Your task to perform on an android device: turn on showing notifications on the lock screen Image 0: 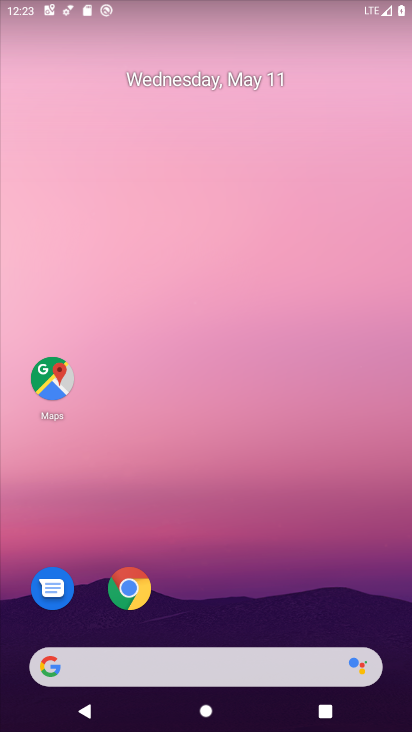
Step 0: drag from (206, 613) to (201, 244)
Your task to perform on an android device: turn on showing notifications on the lock screen Image 1: 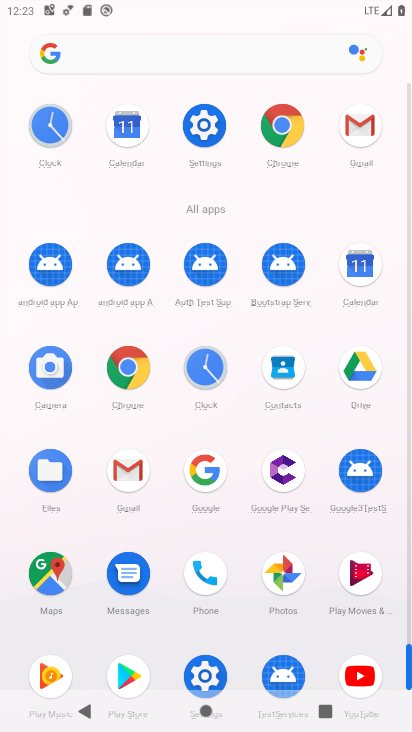
Step 1: click (196, 126)
Your task to perform on an android device: turn on showing notifications on the lock screen Image 2: 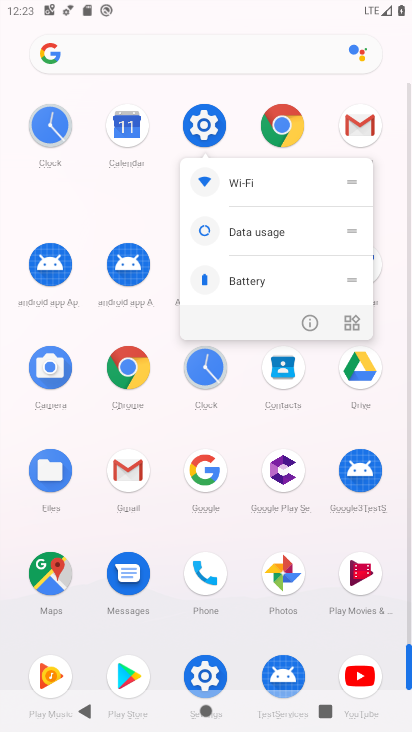
Step 2: click (201, 130)
Your task to perform on an android device: turn on showing notifications on the lock screen Image 3: 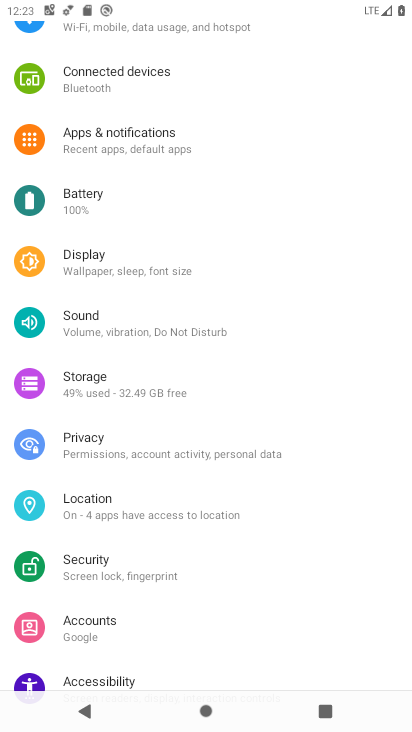
Step 3: click (108, 454)
Your task to perform on an android device: turn on showing notifications on the lock screen Image 4: 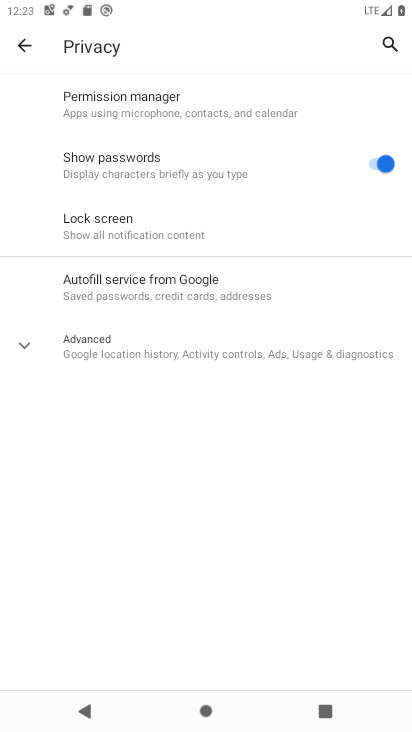
Step 4: click (155, 226)
Your task to perform on an android device: turn on showing notifications on the lock screen Image 5: 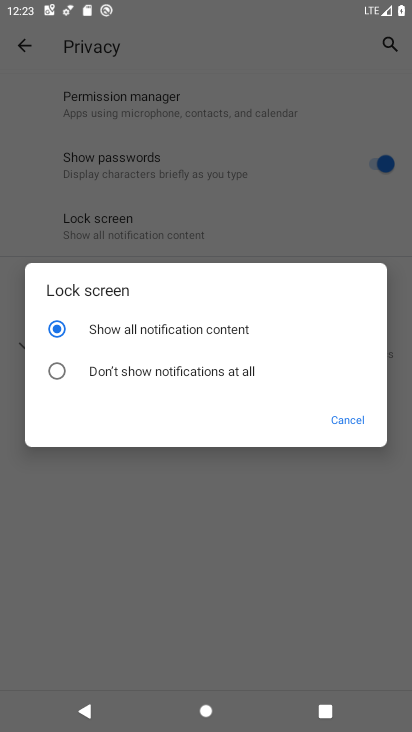
Step 5: task complete